Your task to perform on an android device: Open internet settings Image 0: 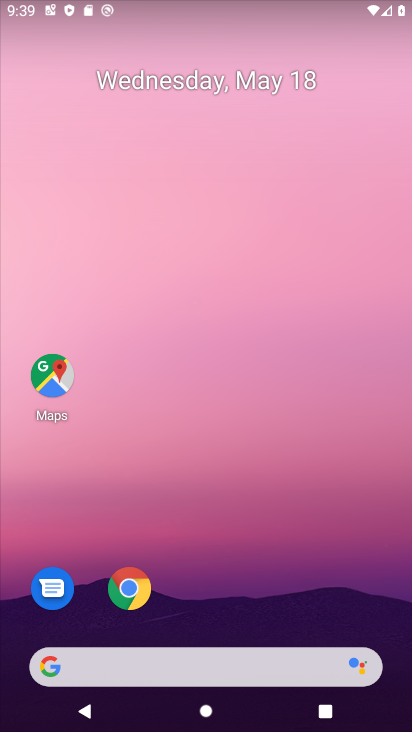
Step 0: drag from (245, 679) to (307, 93)
Your task to perform on an android device: Open internet settings Image 1: 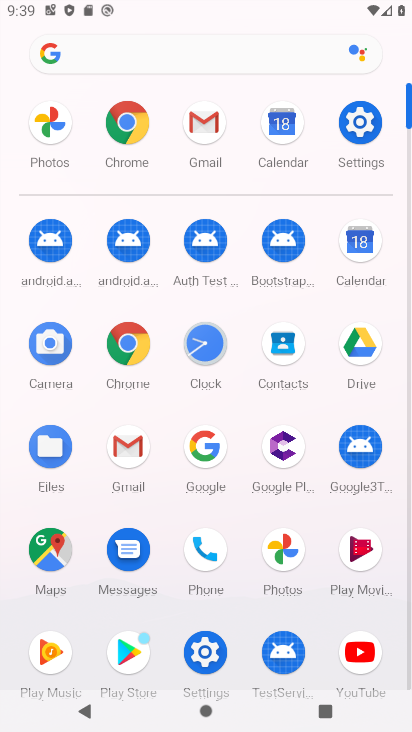
Step 1: click (213, 651)
Your task to perform on an android device: Open internet settings Image 2: 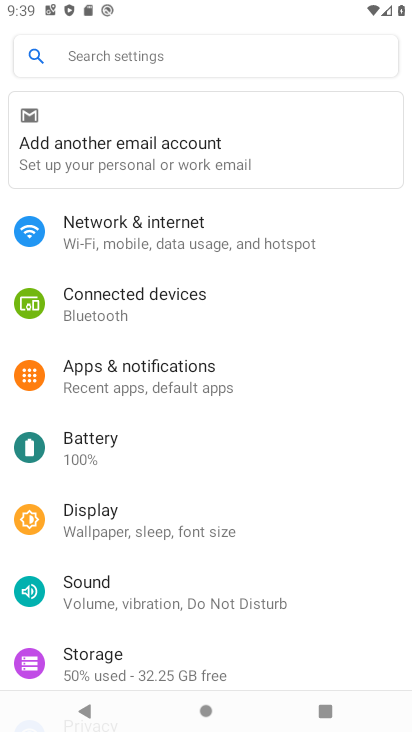
Step 2: click (141, 247)
Your task to perform on an android device: Open internet settings Image 3: 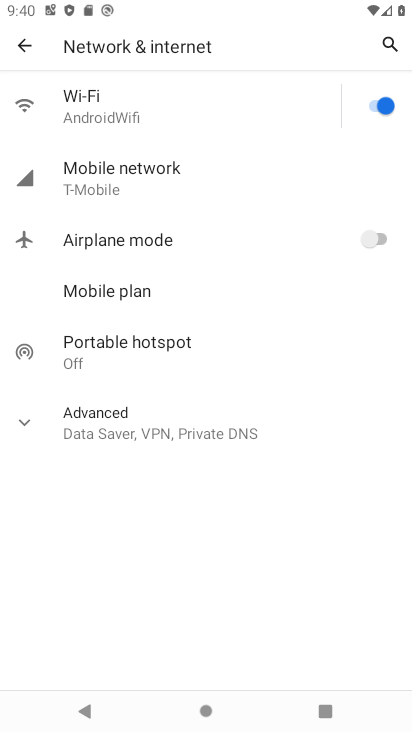
Step 3: task complete